Your task to perform on an android device: turn off translation in the chrome app Image 0: 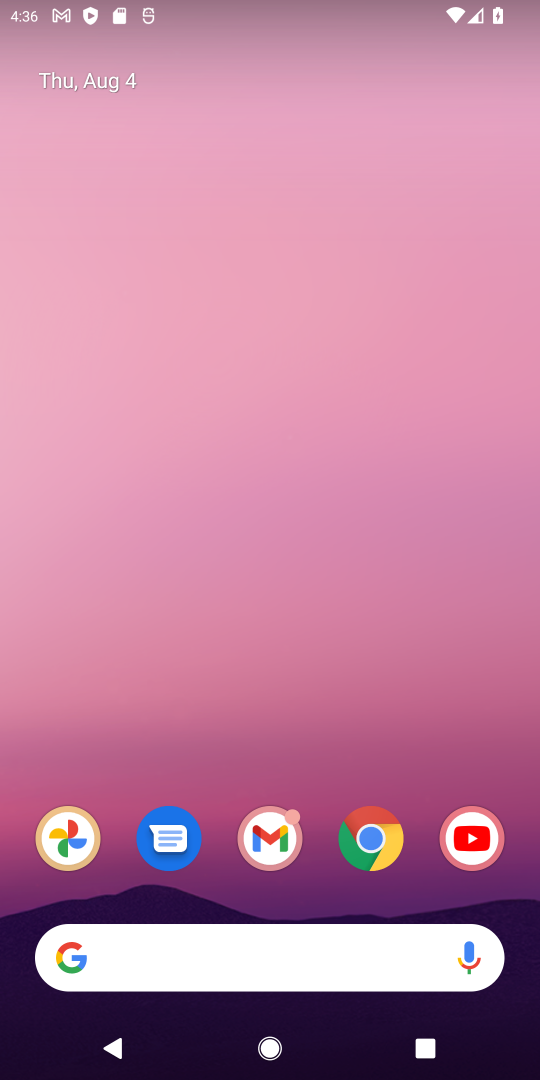
Step 0: drag from (181, 869) to (262, 360)
Your task to perform on an android device: turn off translation in the chrome app Image 1: 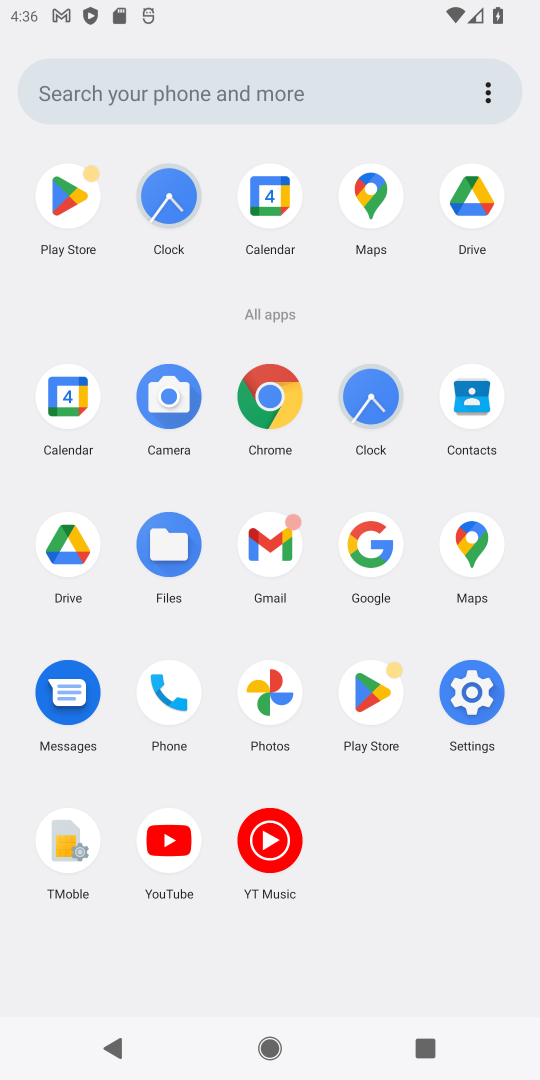
Step 1: click (268, 416)
Your task to perform on an android device: turn off translation in the chrome app Image 2: 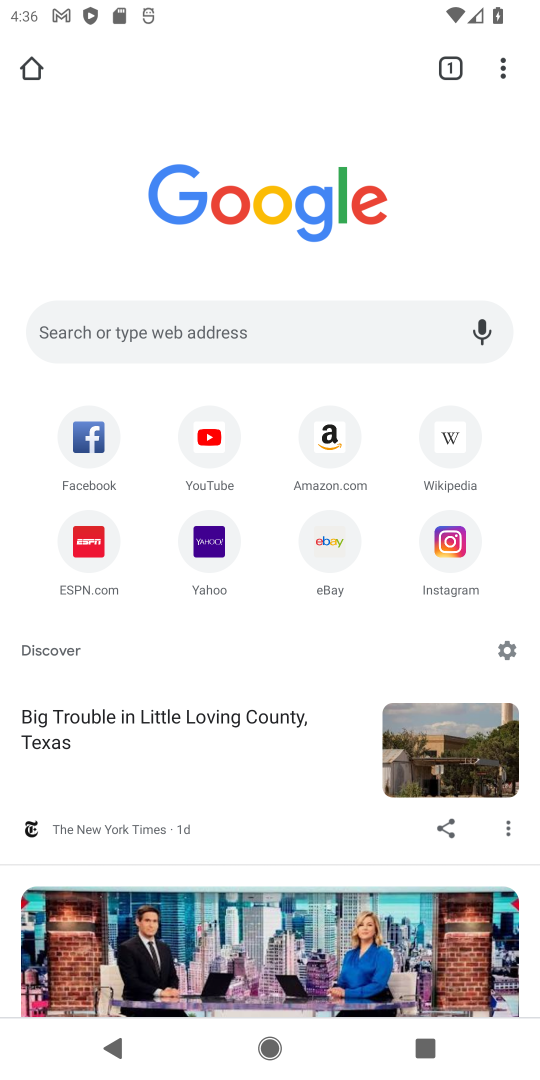
Step 2: drag from (512, 71) to (262, 627)
Your task to perform on an android device: turn off translation in the chrome app Image 3: 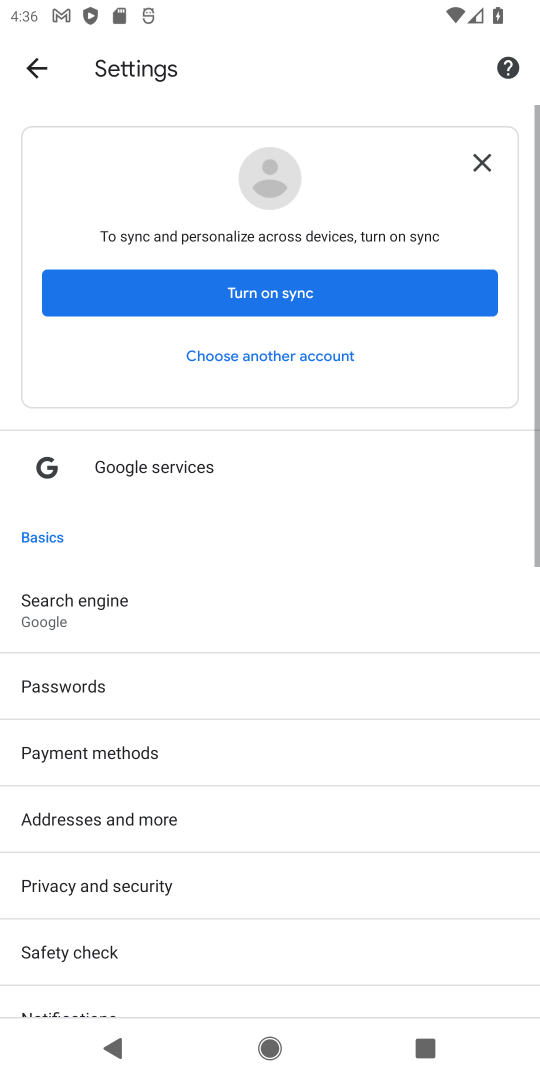
Step 3: drag from (260, 873) to (328, 272)
Your task to perform on an android device: turn off translation in the chrome app Image 4: 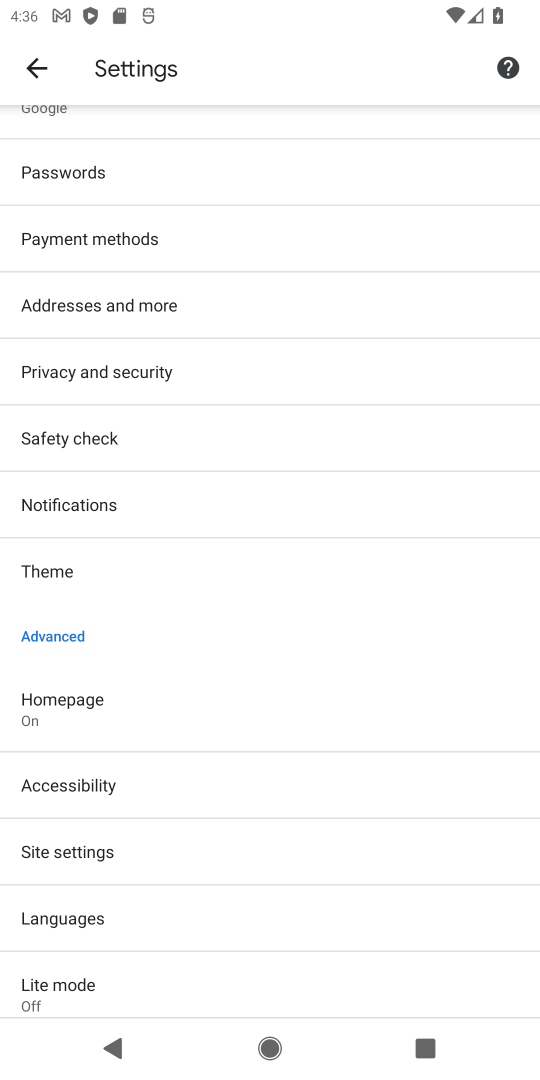
Step 4: click (66, 921)
Your task to perform on an android device: turn off translation in the chrome app Image 5: 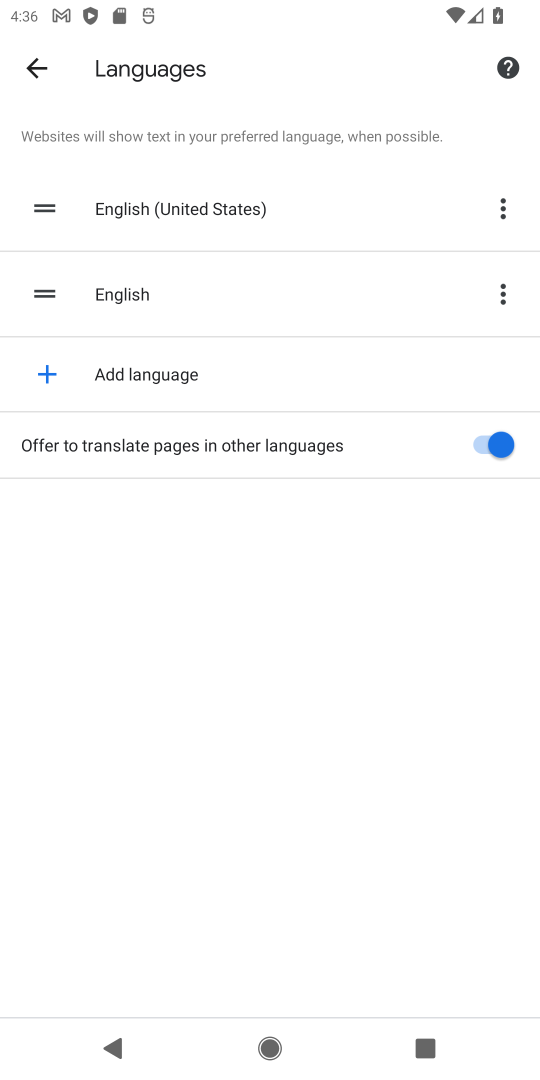
Step 5: click (472, 449)
Your task to perform on an android device: turn off translation in the chrome app Image 6: 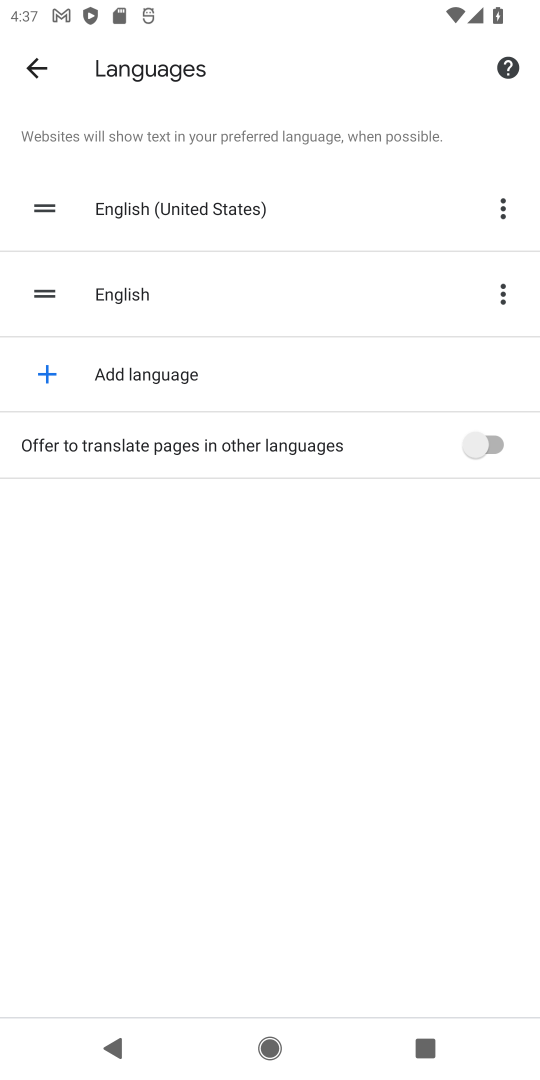
Step 6: task complete